Your task to perform on an android device: Toggle the flashlight Image 0: 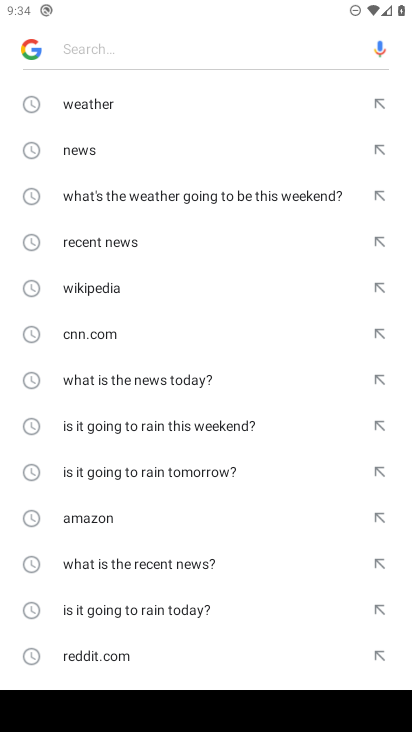
Step 0: press home button
Your task to perform on an android device: Toggle the flashlight Image 1: 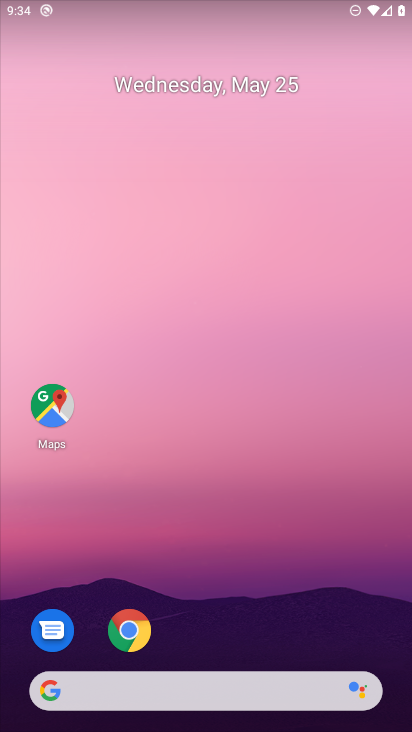
Step 1: drag from (161, 10) to (156, 456)
Your task to perform on an android device: Toggle the flashlight Image 2: 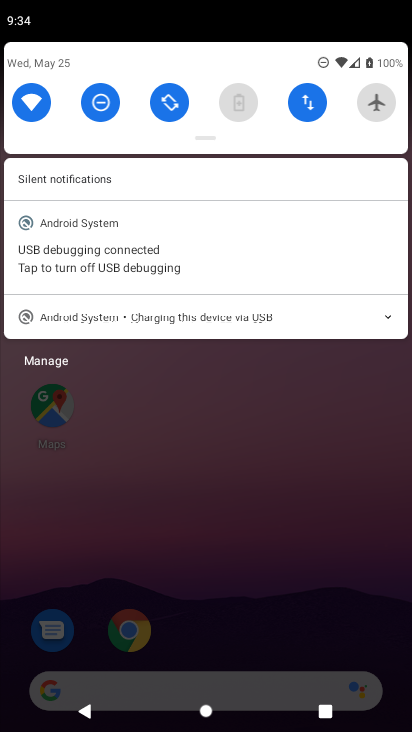
Step 2: drag from (264, 107) to (277, 548)
Your task to perform on an android device: Toggle the flashlight Image 3: 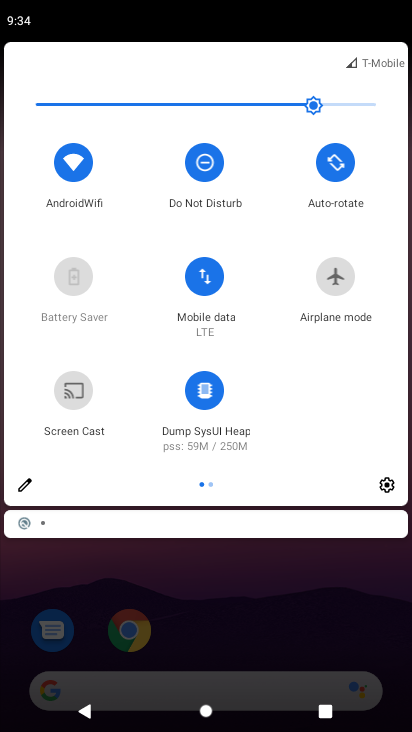
Step 3: drag from (327, 383) to (1, 458)
Your task to perform on an android device: Toggle the flashlight Image 4: 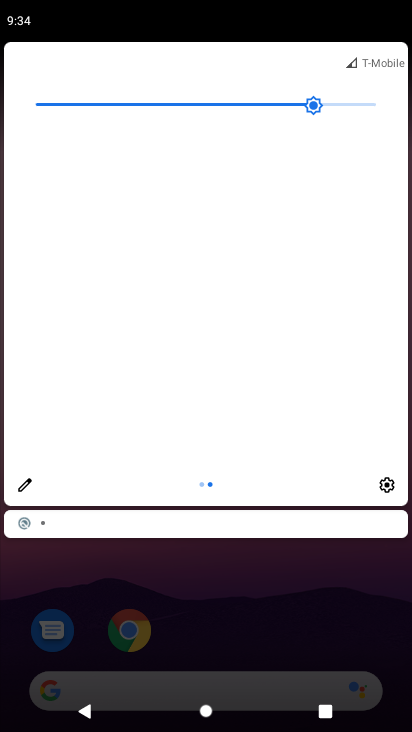
Step 4: drag from (96, 358) to (0, 482)
Your task to perform on an android device: Toggle the flashlight Image 5: 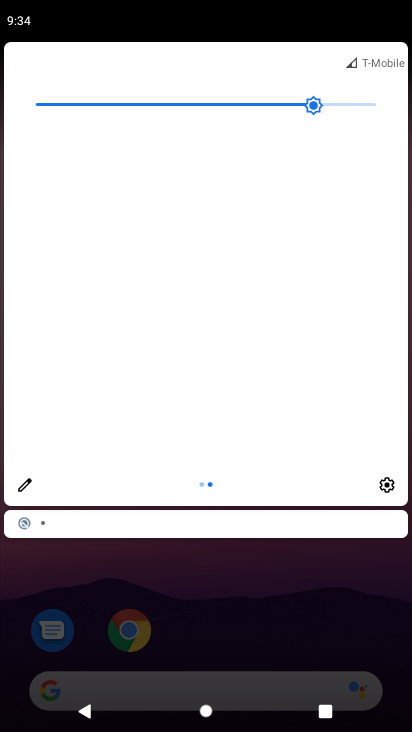
Step 5: click (23, 493)
Your task to perform on an android device: Toggle the flashlight Image 6: 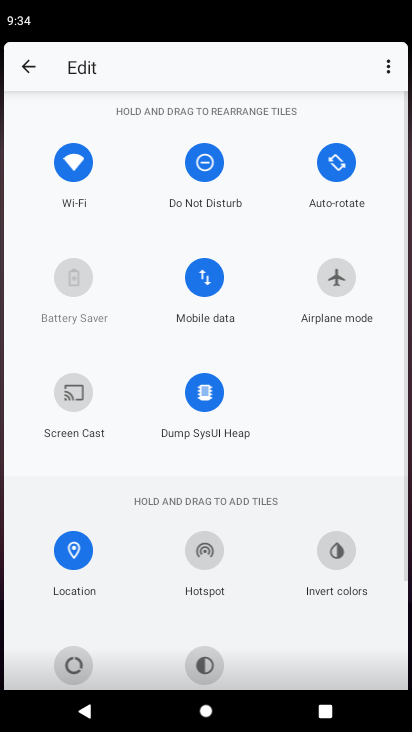
Step 6: task complete